Your task to perform on an android device: Open accessibility settings Image 0: 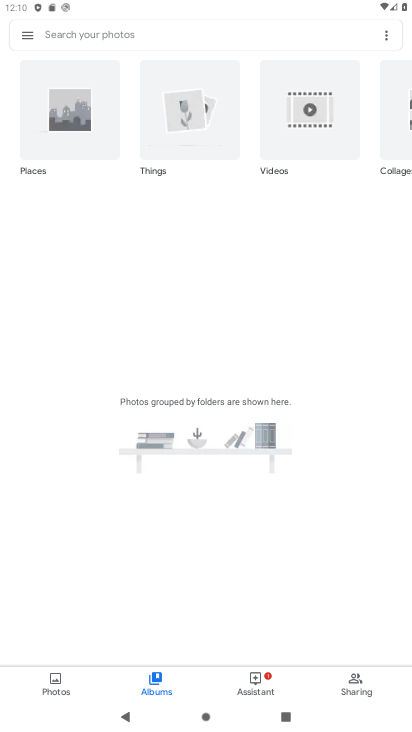
Step 0: press home button
Your task to perform on an android device: Open accessibility settings Image 1: 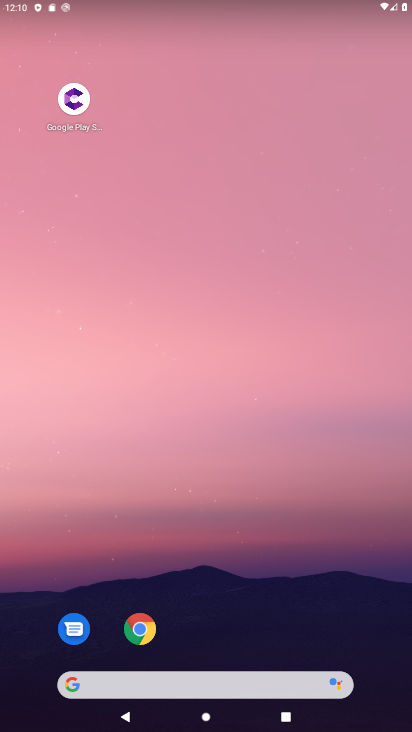
Step 1: drag from (211, 632) to (155, 154)
Your task to perform on an android device: Open accessibility settings Image 2: 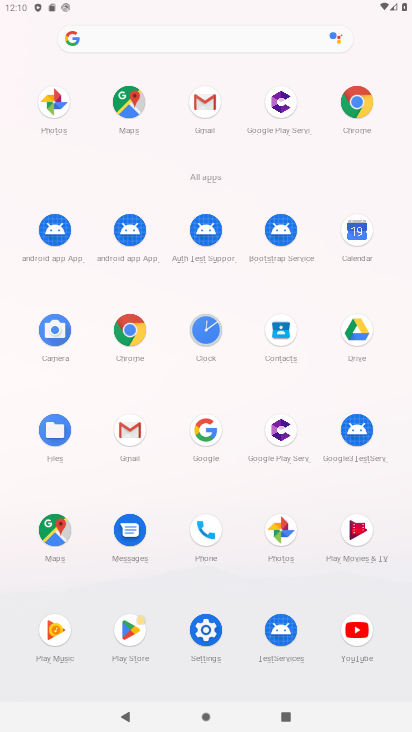
Step 2: click (200, 637)
Your task to perform on an android device: Open accessibility settings Image 3: 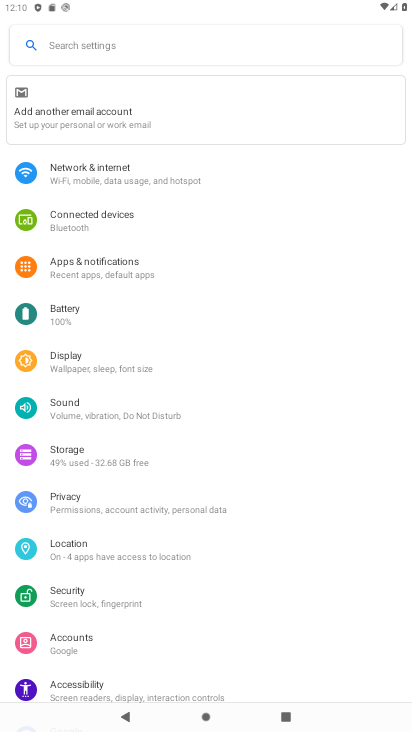
Step 3: click (59, 662)
Your task to perform on an android device: Open accessibility settings Image 4: 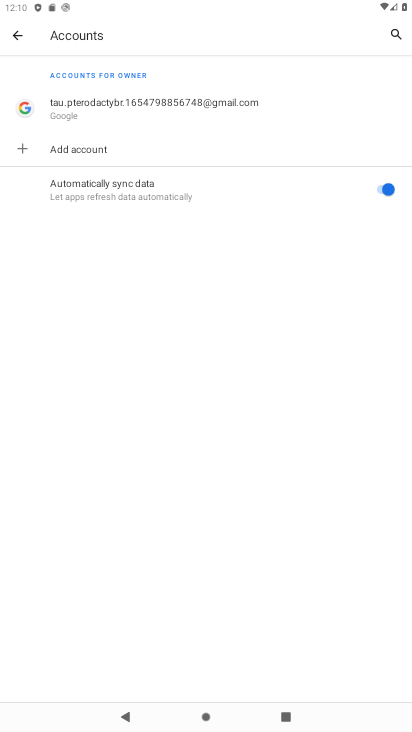
Step 4: task complete